Your task to perform on an android device: Open the web browser Image 0: 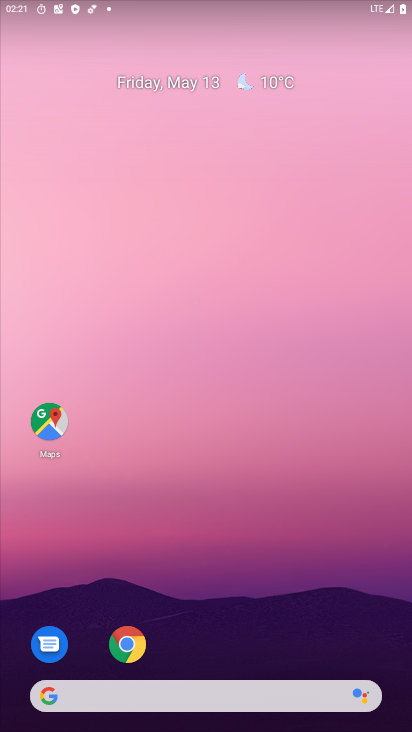
Step 0: drag from (221, 680) to (344, 73)
Your task to perform on an android device: Open the web browser Image 1: 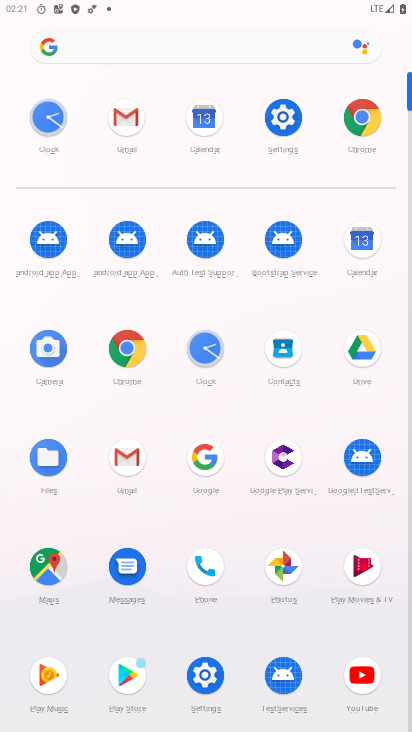
Step 1: click (123, 351)
Your task to perform on an android device: Open the web browser Image 2: 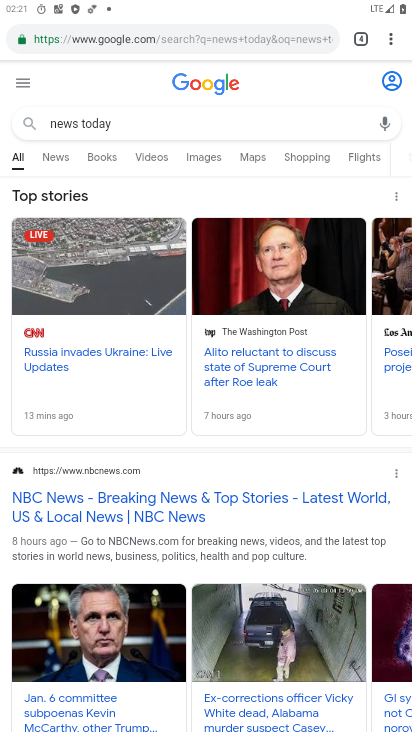
Step 2: click (394, 46)
Your task to perform on an android device: Open the web browser Image 3: 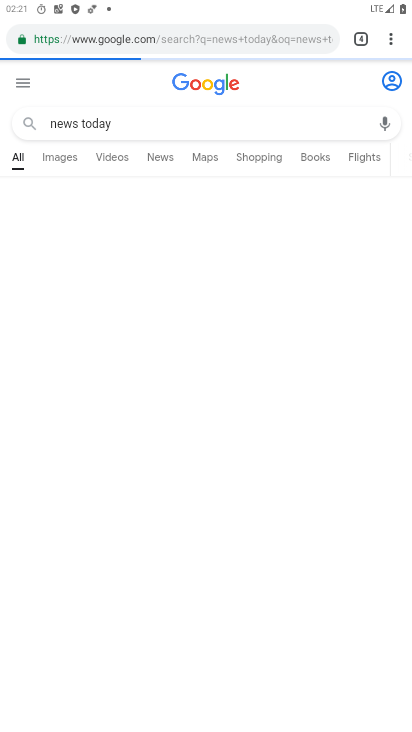
Step 3: click (382, 37)
Your task to perform on an android device: Open the web browser Image 4: 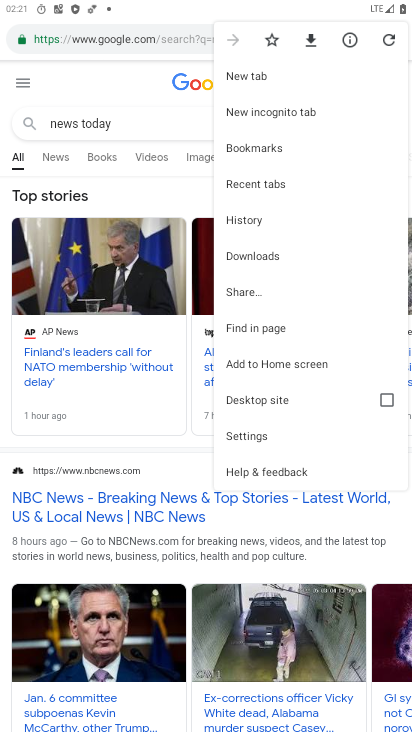
Step 4: click (282, 82)
Your task to perform on an android device: Open the web browser Image 5: 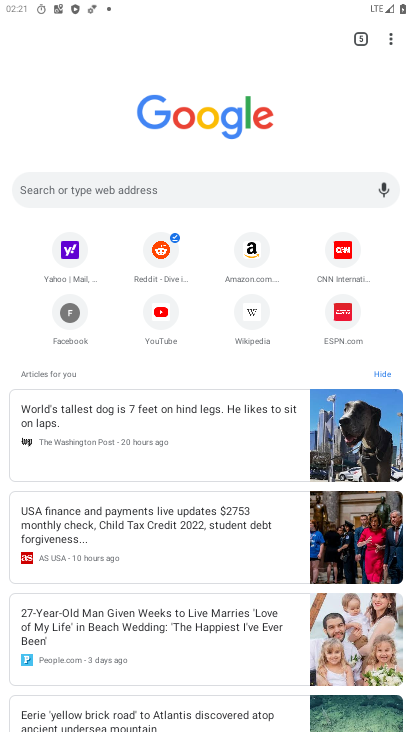
Step 5: task complete